Your task to perform on an android device: Open privacy settings Image 0: 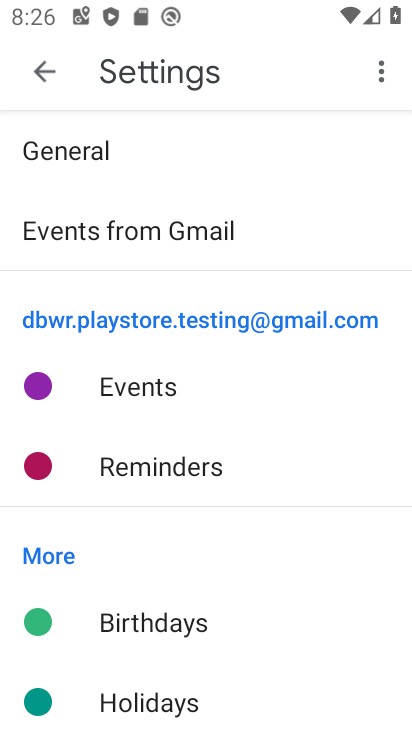
Step 0: press home button
Your task to perform on an android device: Open privacy settings Image 1: 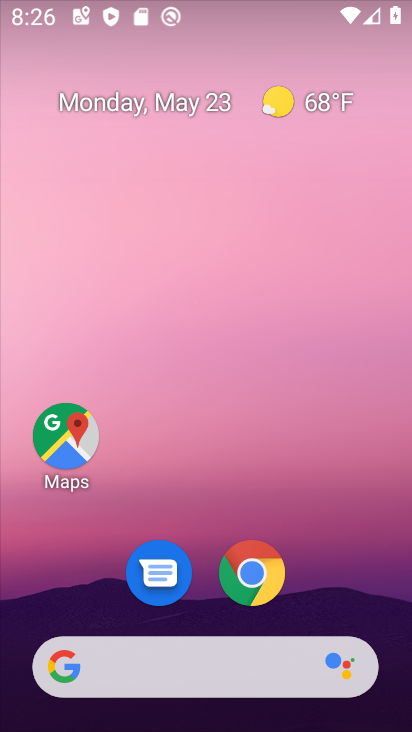
Step 1: drag from (288, 677) to (257, 30)
Your task to perform on an android device: Open privacy settings Image 2: 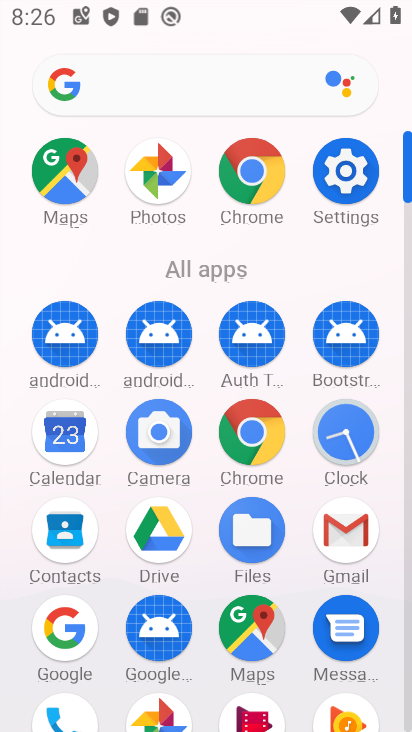
Step 2: click (339, 195)
Your task to perform on an android device: Open privacy settings Image 3: 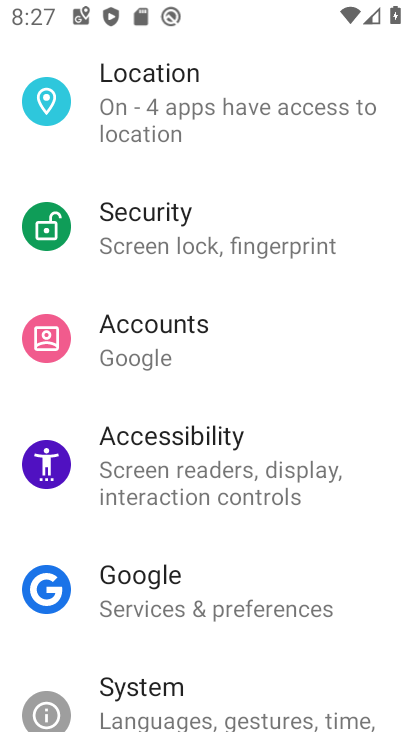
Step 3: drag from (201, 546) to (204, 299)
Your task to perform on an android device: Open privacy settings Image 4: 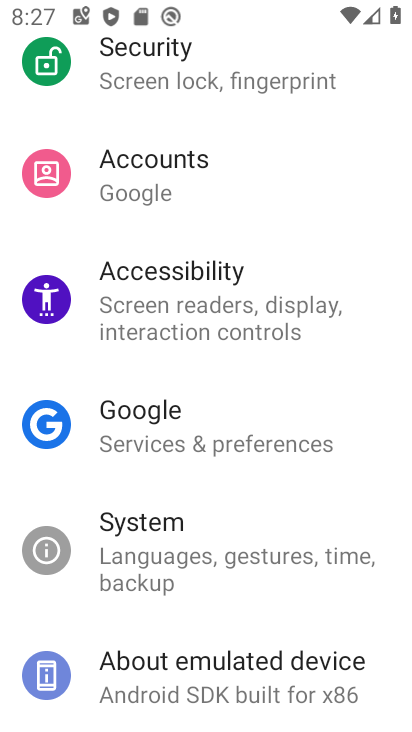
Step 4: drag from (231, 278) to (205, 702)
Your task to perform on an android device: Open privacy settings Image 5: 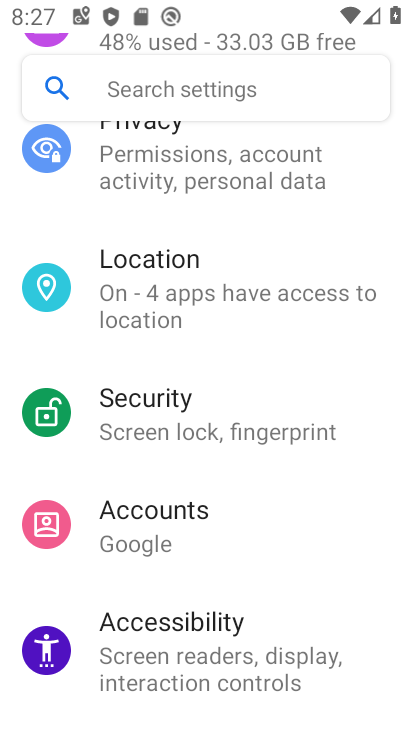
Step 5: click (214, 173)
Your task to perform on an android device: Open privacy settings Image 6: 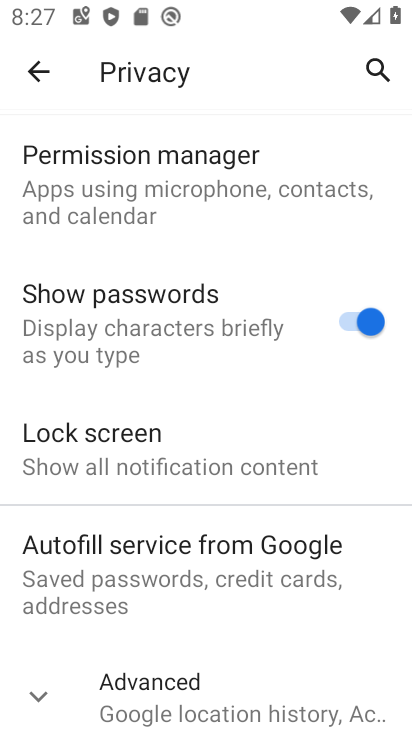
Step 6: task complete